Your task to perform on an android device: Go to Android settings Image 0: 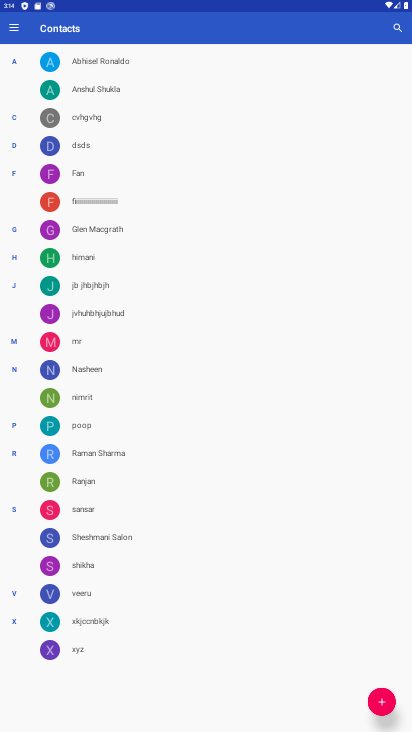
Step 0: press home button
Your task to perform on an android device: Go to Android settings Image 1: 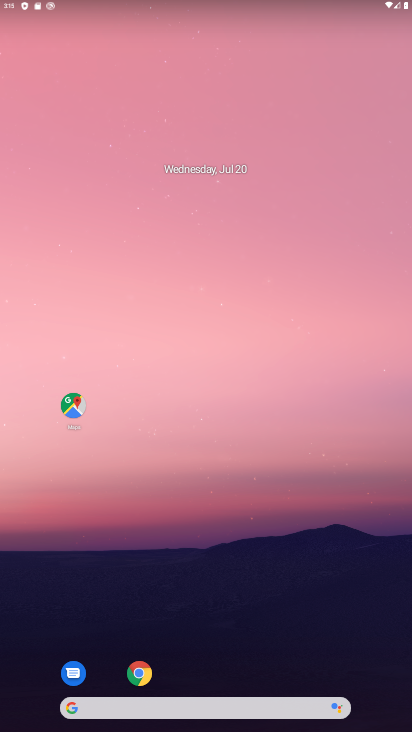
Step 1: drag from (312, 624) to (301, 214)
Your task to perform on an android device: Go to Android settings Image 2: 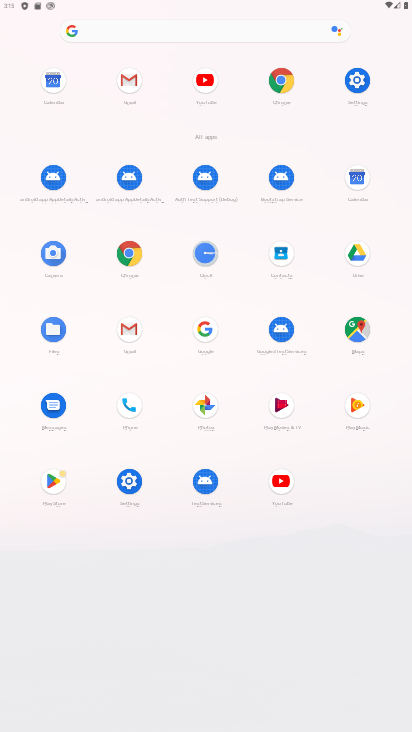
Step 2: click (135, 483)
Your task to perform on an android device: Go to Android settings Image 3: 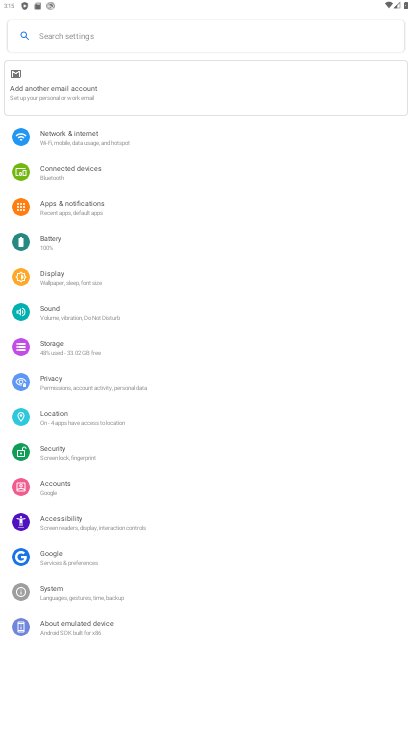
Step 3: task complete